Your task to perform on an android device: Go to battery settings Image 0: 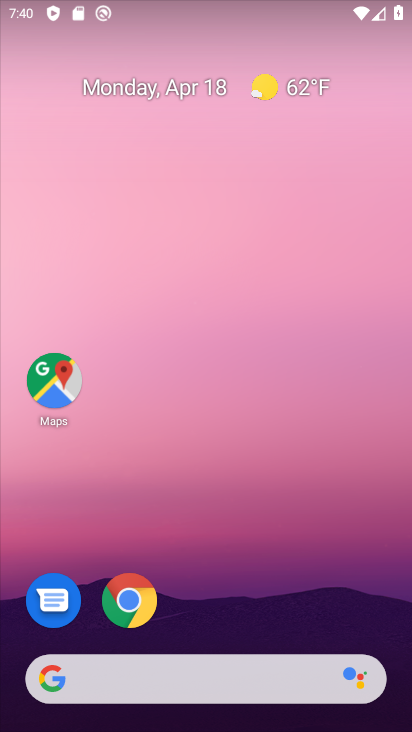
Step 0: drag from (211, 645) to (208, 72)
Your task to perform on an android device: Go to battery settings Image 1: 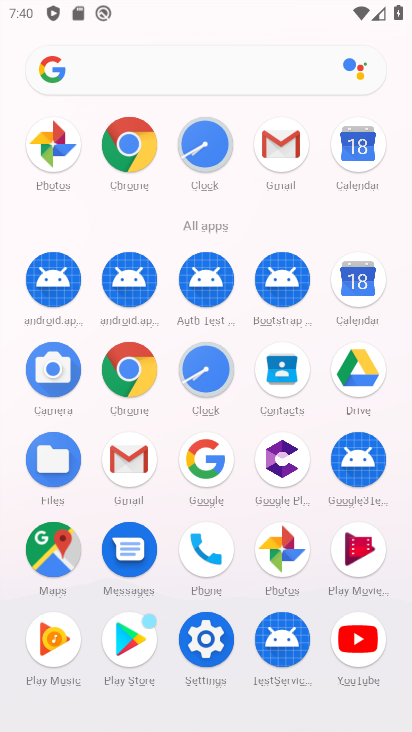
Step 1: click (198, 646)
Your task to perform on an android device: Go to battery settings Image 2: 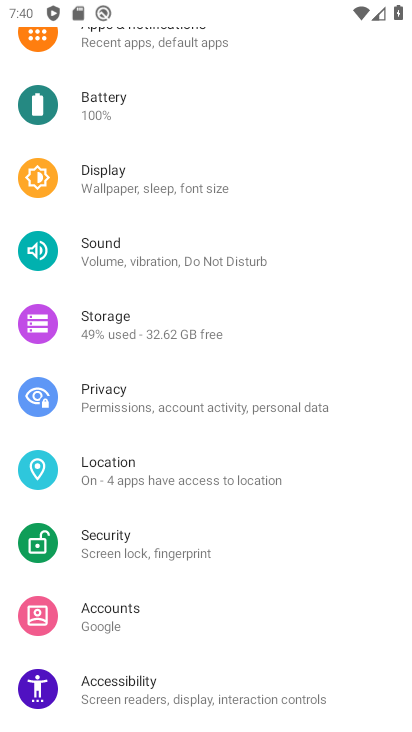
Step 2: click (93, 116)
Your task to perform on an android device: Go to battery settings Image 3: 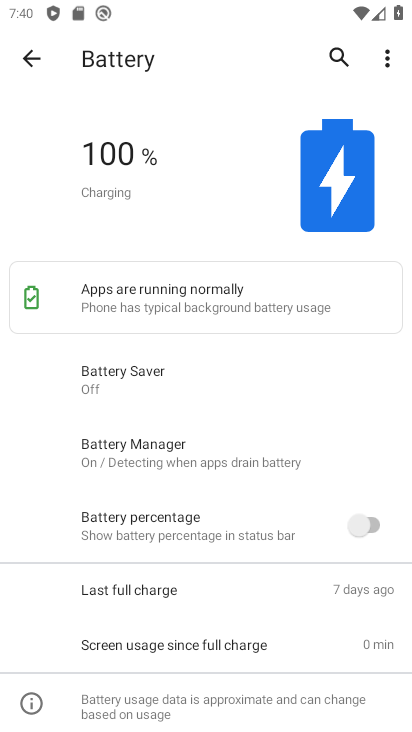
Step 3: task complete